Your task to perform on an android device: Open calendar and show me the fourth week of next month Image 0: 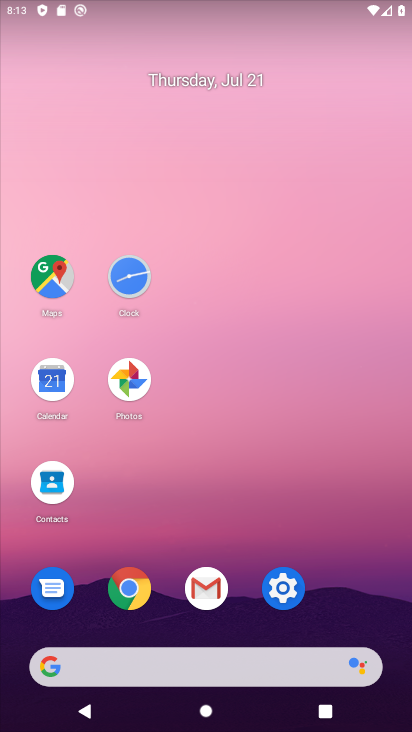
Step 0: click (47, 381)
Your task to perform on an android device: Open calendar and show me the fourth week of next month Image 1: 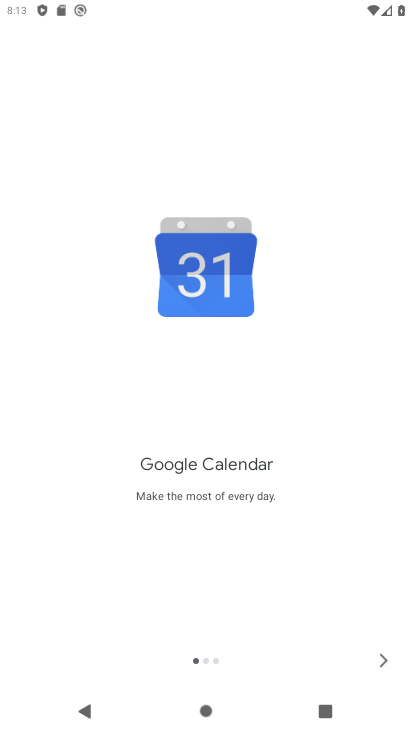
Step 1: click (379, 655)
Your task to perform on an android device: Open calendar and show me the fourth week of next month Image 2: 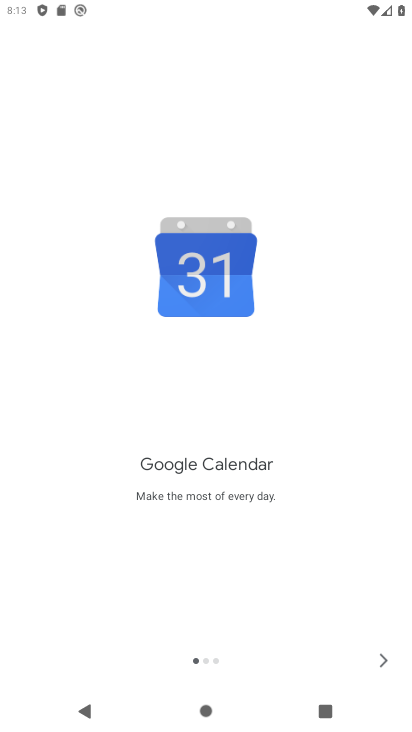
Step 2: click (379, 655)
Your task to perform on an android device: Open calendar and show me the fourth week of next month Image 3: 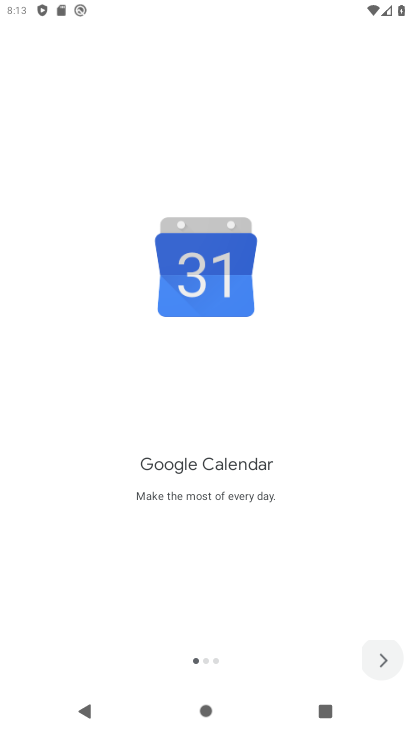
Step 3: click (379, 655)
Your task to perform on an android device: Open calendar and show me the fourth week of next month Image 4: 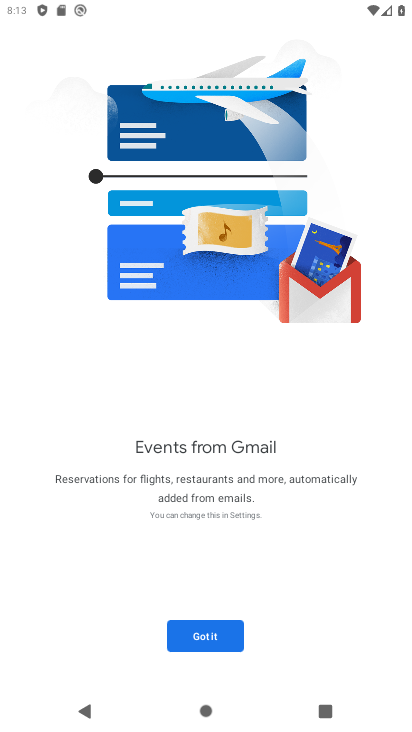
Step 4: click (184, 628)
Your task to perform on an android device: Open calendar and show me the fourth week of next month Image 5: 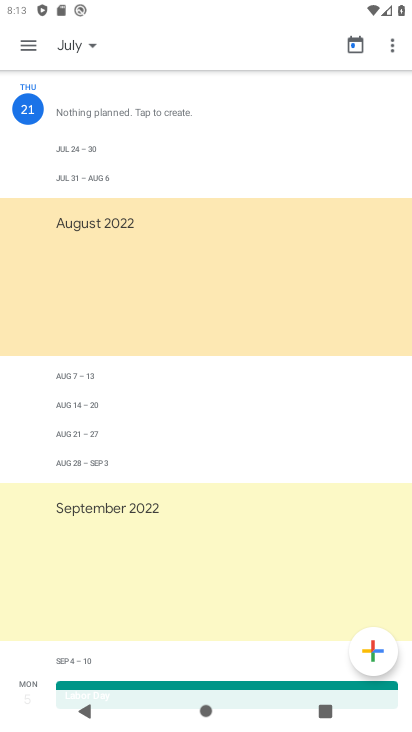
Step 5: click (26, 45)
Your task to perform on an android device: Open calendar and show me the fourth week of next month Image 6: 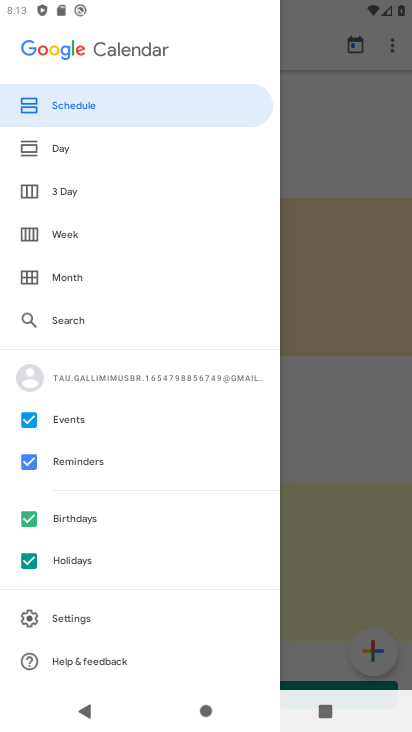
Step 6: click (69, 232)
Your task to perform on an android device: Open calendar and show me the fourth week of next month Image 7: 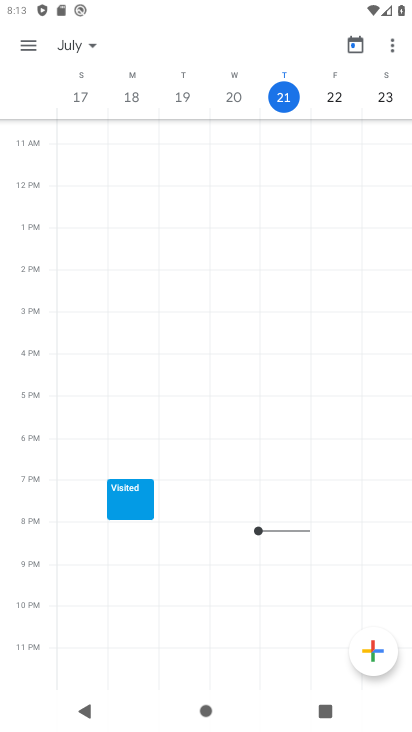
Step 7: click (90, 40)
Your task to perform on an android device: Open calendar and show me the fourth week of next month Image 8: 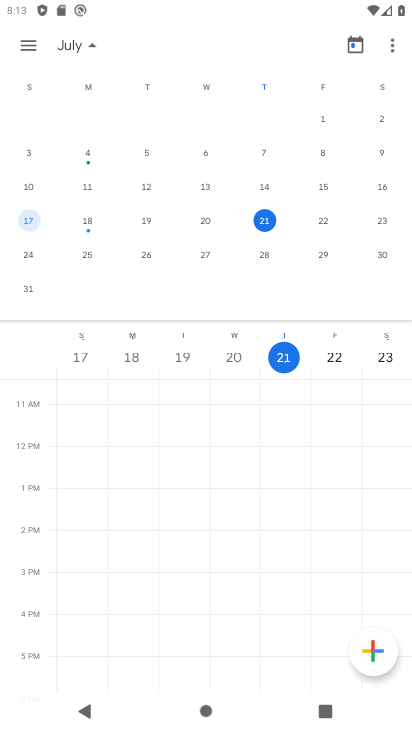
Step 8: drag from (374, 172) to (36, 133)
Your task to perform on an android device: Open calendar and show me the fourth week of next month Image 9: 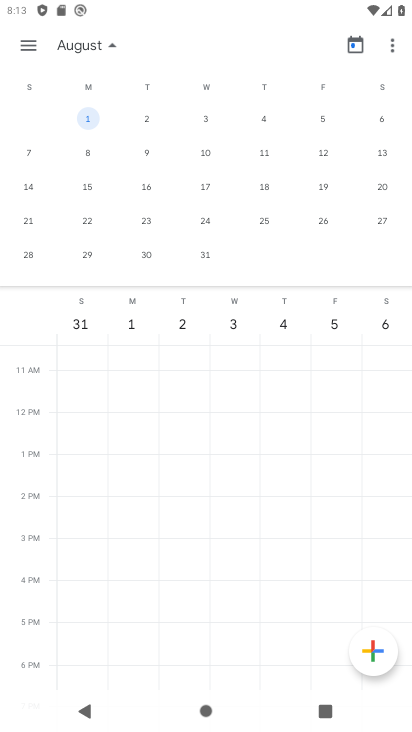
Step 9: click (145, 216)
Your task to perform on an android device: Open calendar and show me the fourth week of next month Image 10: 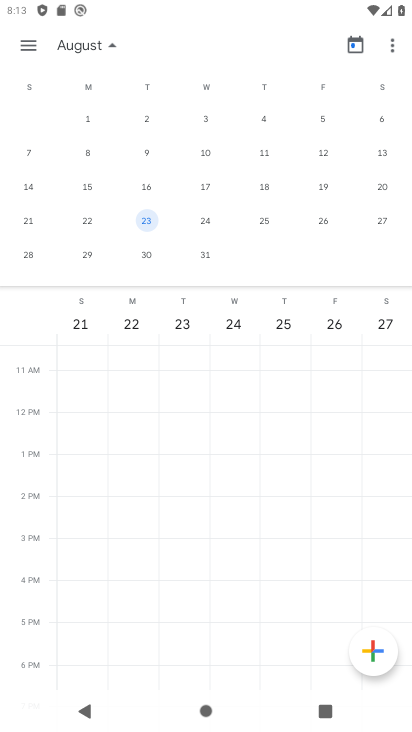
Step 10: task complete